Your task to perform on an android device: delete browsing data in the chrome app Image 0: 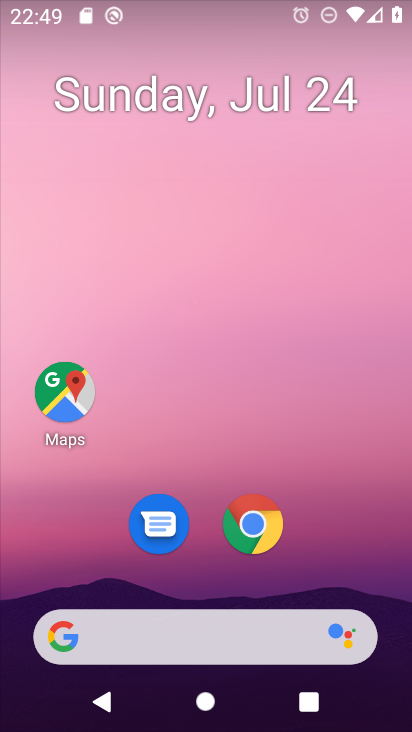
Step 0: press home button
Your task to perform on an android device: delete browsing data in the chrome app Image 1: 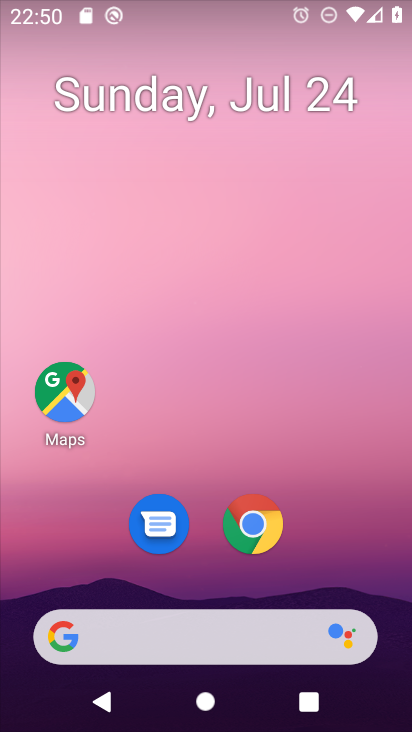
Step 1: click (257, 523)
Your task to perform on an android device: delete browsing data in the chrome app Image 2: 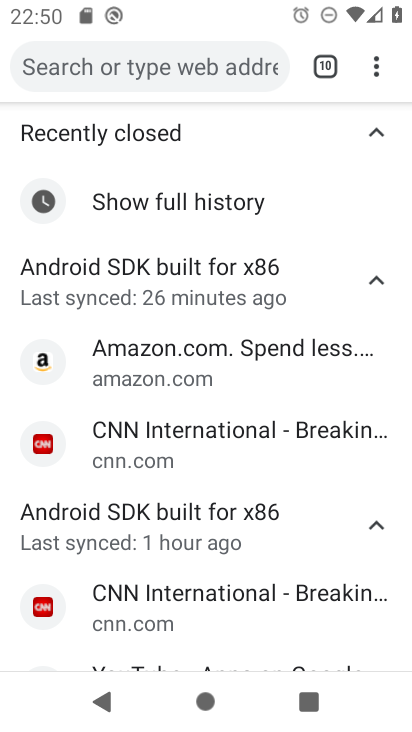
Step 2: drag from (377, 71) to (201, 566)
Your task to perform on an android device: delete browsing data in the chrome app Image 3: 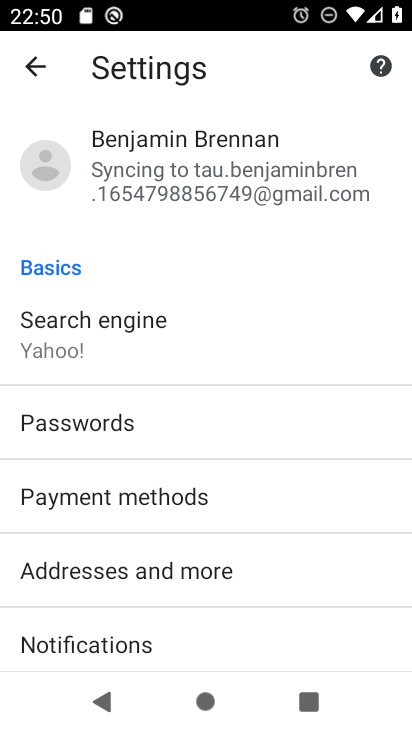
Step 3: drag from (189, 620) to (312, 239)
Your task to perform on an android device: delete browsing data in the chrome app Image 4: 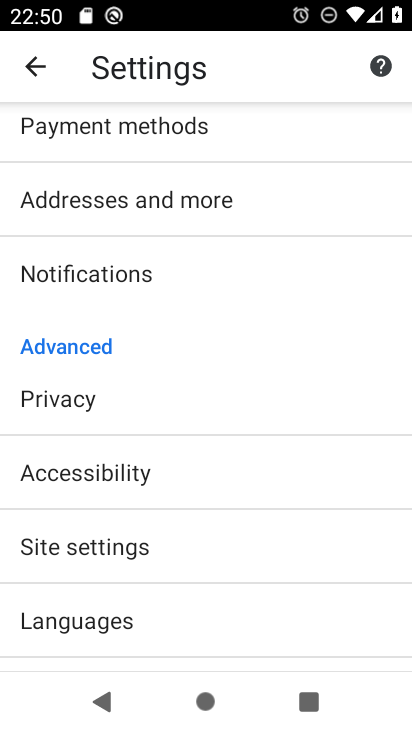
Step 4: click (82, 393)
Your task to perform on an android device: delete browsing data in the chrome app Image 5: 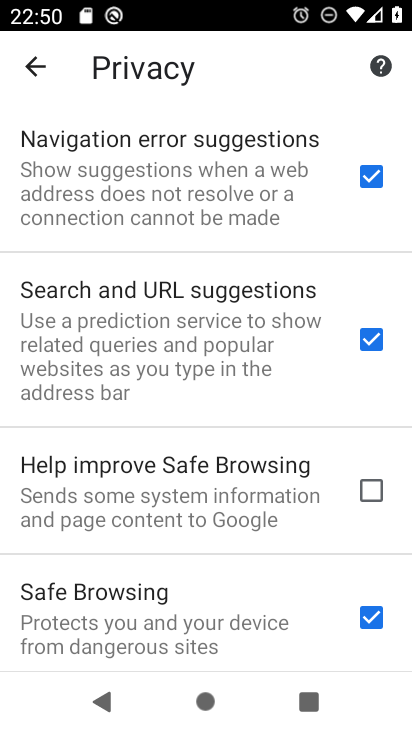
Step 5: drag from (167, 597) to (331, 68)
Your task to perform on an android device: delete browsing data in the chrome app Image 6: 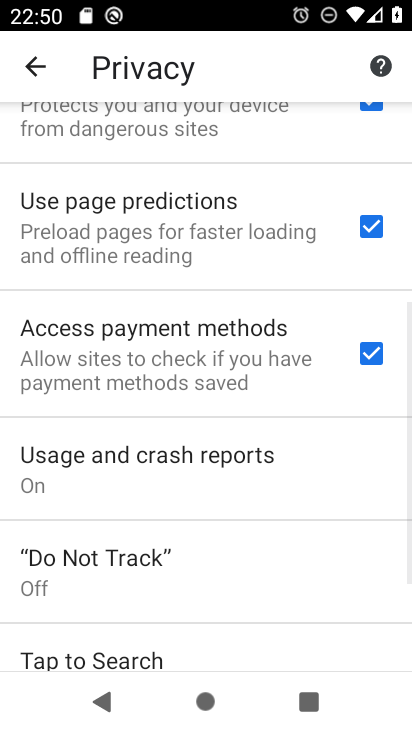
Step 6: drag from (211, 600) to (331, 58)
Your task to perform on an android device: delete browsing data in the chrome app Image 7: 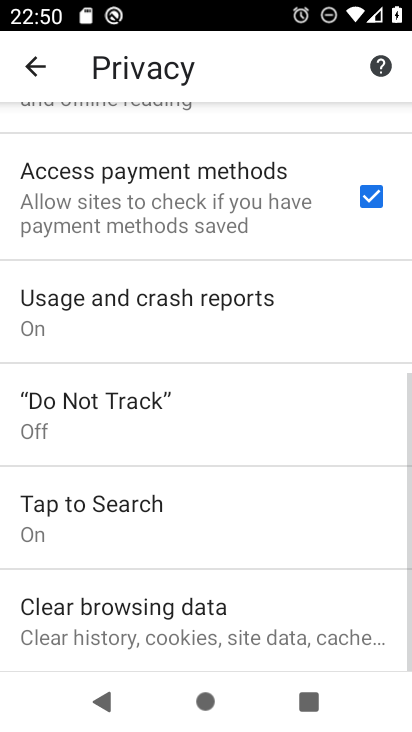
Step 7: click (179, 626)
Your task to perform on an android device: delete browsing data in the chrome app Image 8: 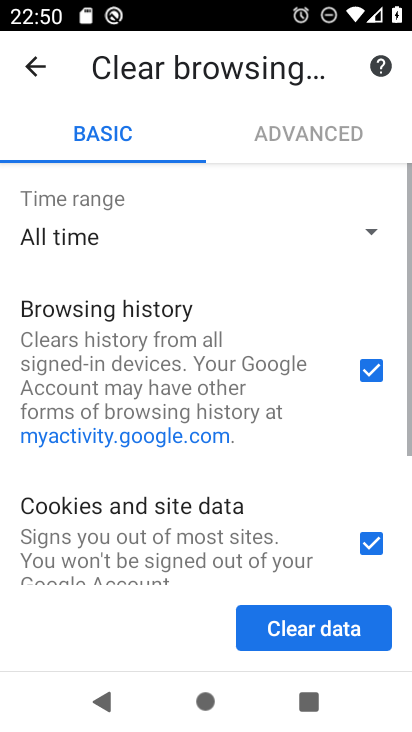
Step 8: drag from (288, 491) to (371, 78)
Your task to perform on an android device: delete browsing data in the chrome app Image 9: 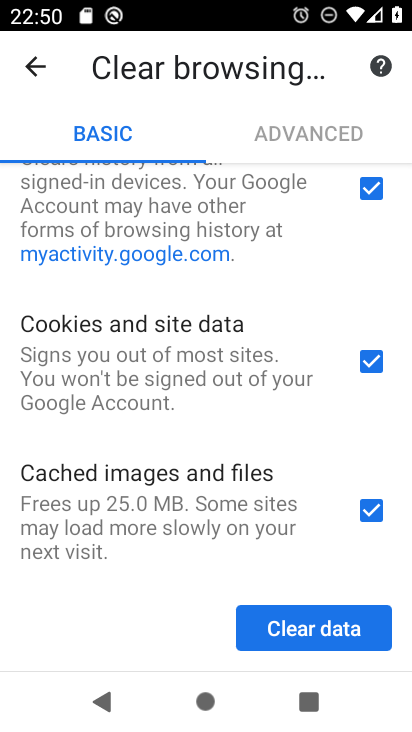
Step 9: click (359, 624)
Your task to perform on an android device: delete browsing data in the chrome app Image 10: 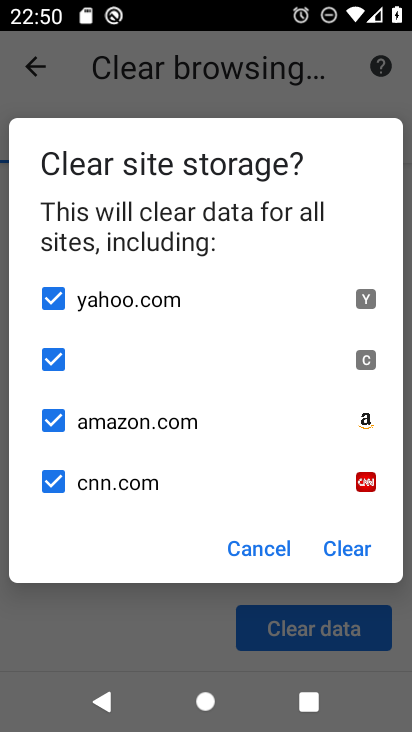
Step 10: click (340, 553)
Your task to perform on an android device: delete browsing data in the chrome app Image 11: 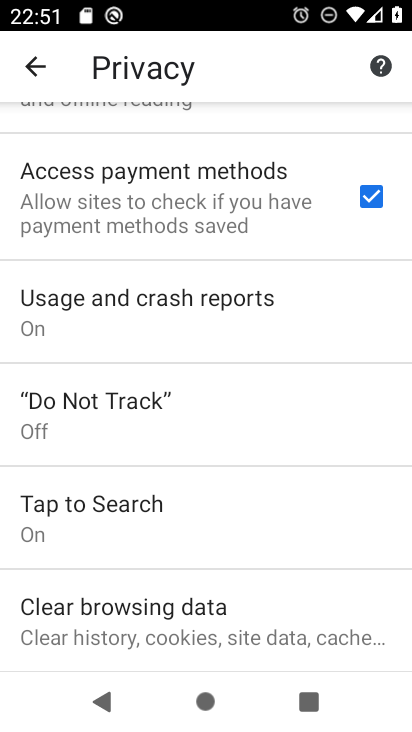
Step 11: task complete